Your task to perform on an android device: Open Amazon Image 0: 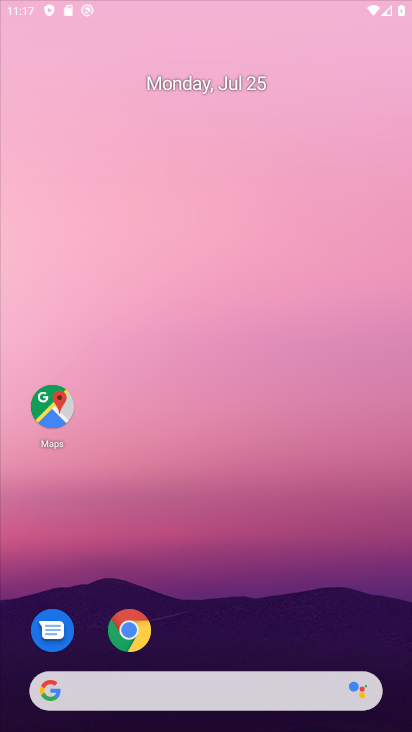
Step 0: click (215, 122)
Your task to perform on an android device: Open Amazon Image 1: 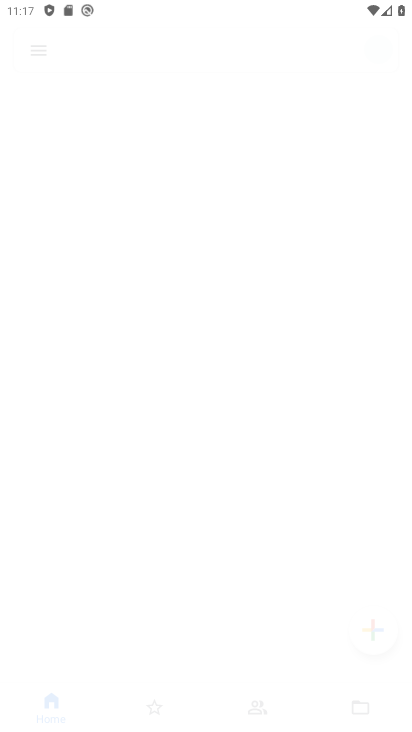
Step 1: drag from (229, 579) to (247, 121)
Your task to perform on an android device: Open Amazon Image 2: 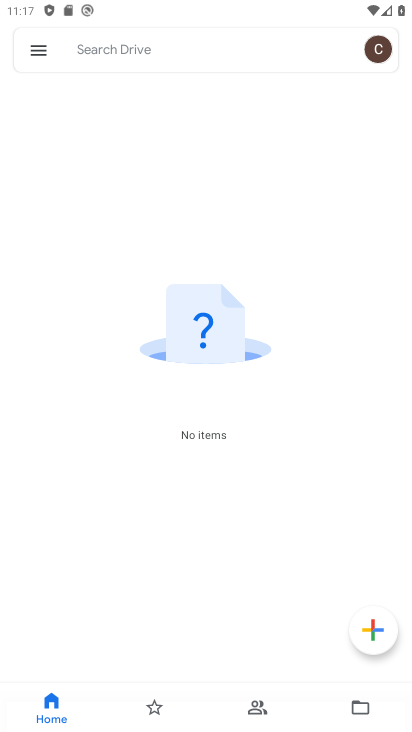
Step 2: press back button
Your task to perform on an android device: Open Amazon Image 3: 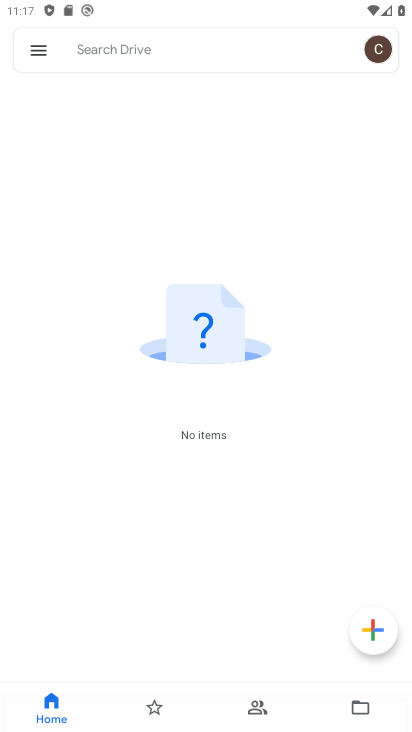
Step 3: press back button
Your task to perform on an android device: Open Amazon Image 4: 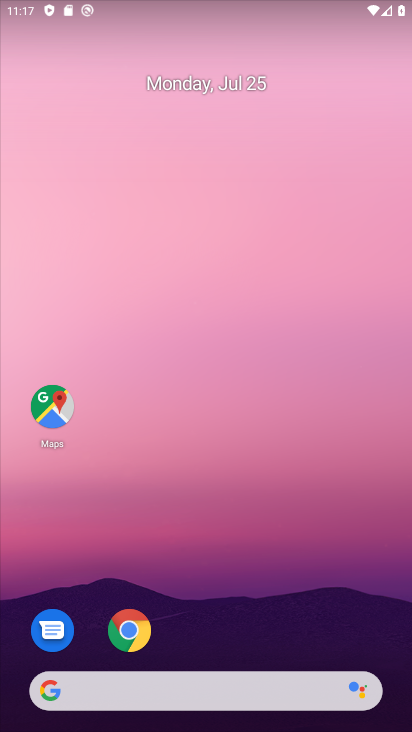
Step 4: drag from (256, 327) to (230, 155)
Your task to perform on an android device: Open Amazon Image 5: 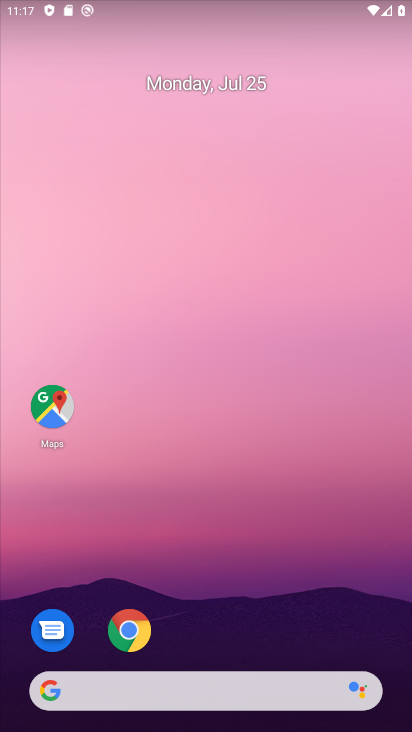
Step 5: drag from (227, 497) to (193, 48)
Your task to perform on an android device: Open Amazon Image 6: 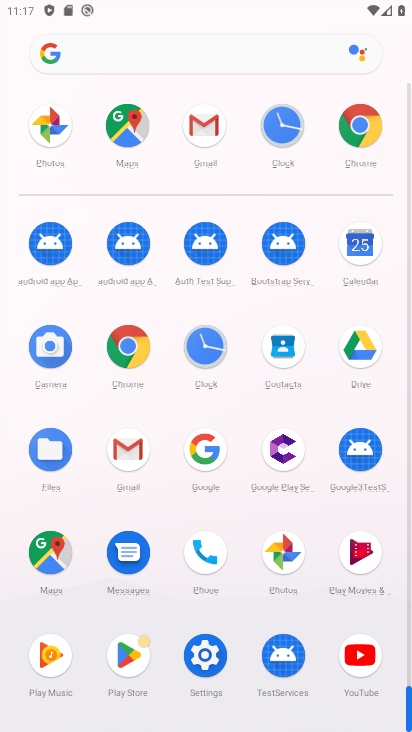
Step 6: drag from (219, 571) to (188, 193)
Your task to perform on an android device: Open Amazon Image 7: 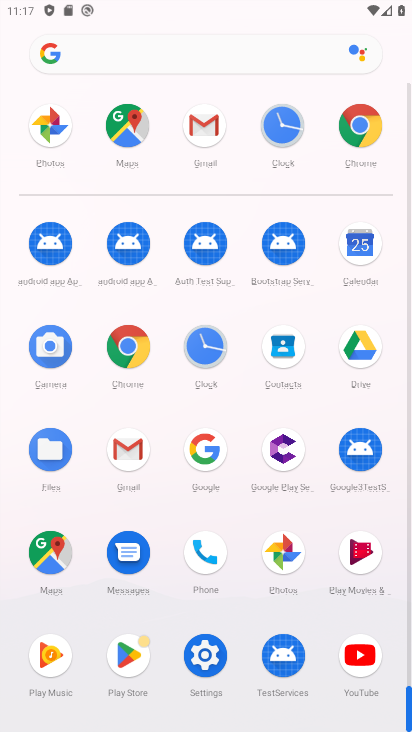
Step 7: click (123, 365)
Your task to perform on an android device: Open Amazon Image 8: 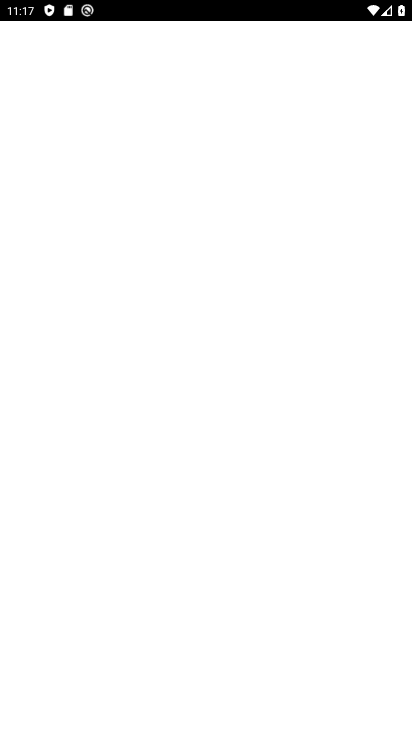
Step 8: click (123, 364)
Your task to perform on an android device: Open Amazon Image 9: 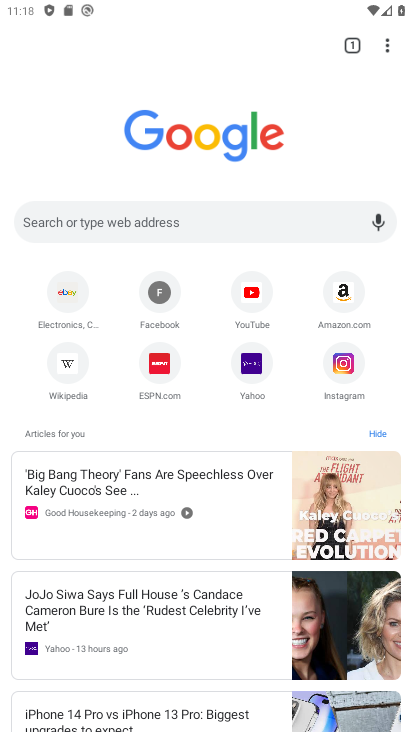
Step 9: click (335, 291)
Your task to perform on an android device: Open Amazon Image 10: 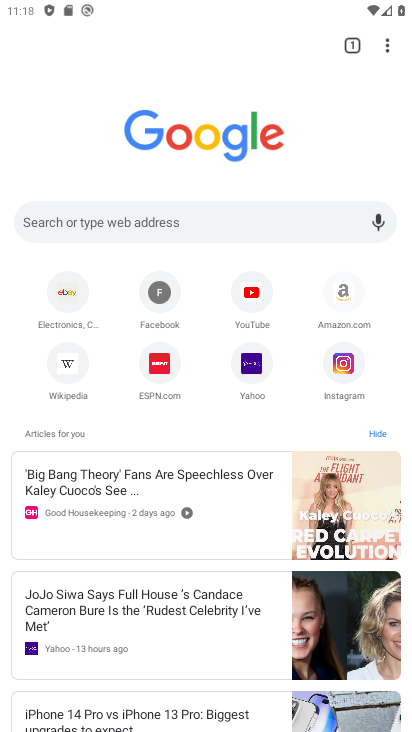
Step 10: click (337, 291)
Your task to perform on an android device: Open Amazon Image 11: 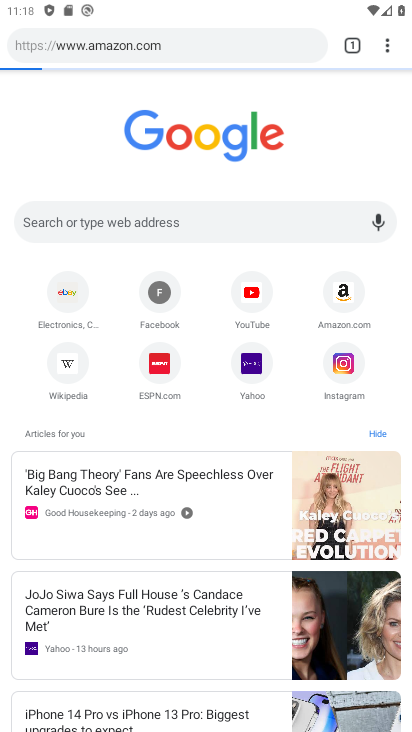
Step 11: click (337, 292)
Your task to perform on an android device: Open Amazon Image 12: 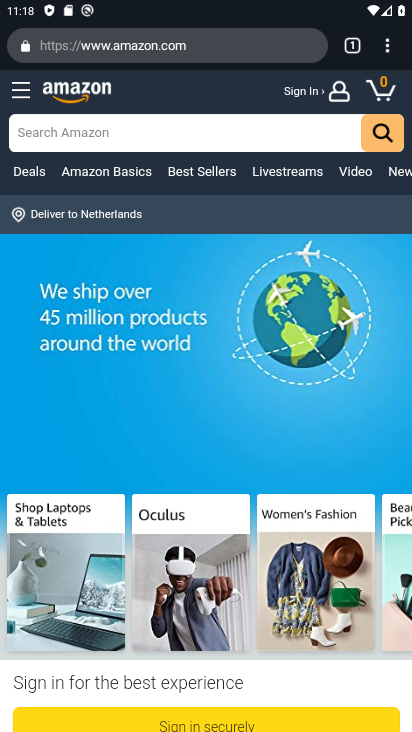
Step 12: task complete